Your task to perform on an android device: manage bookmarks in the chrome app Image 0: 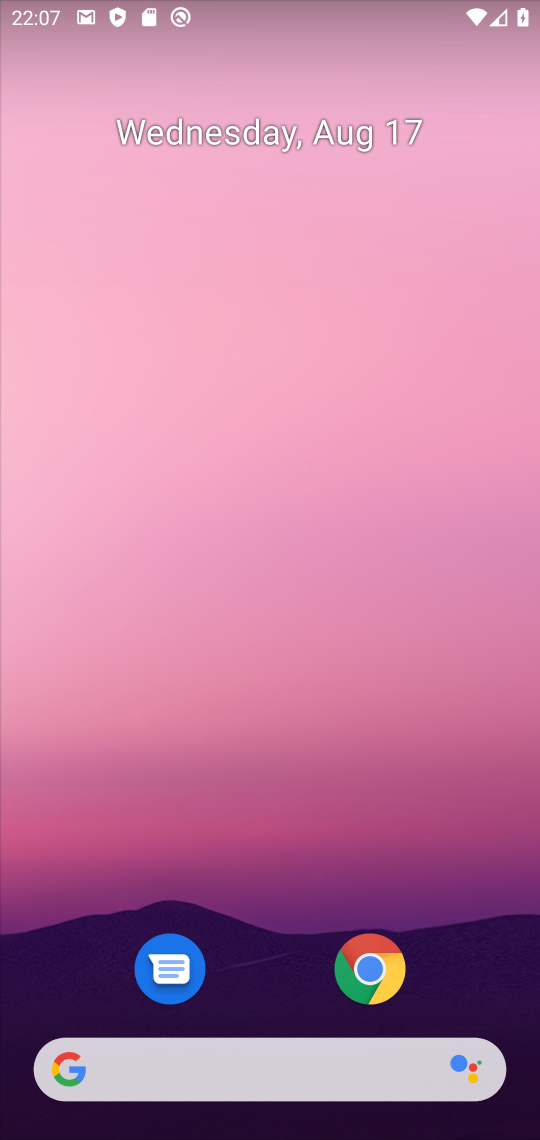
Step 0: click (368, 969)
Your task to perform on an android device: manage bookmarks in the chrome app Image 1: 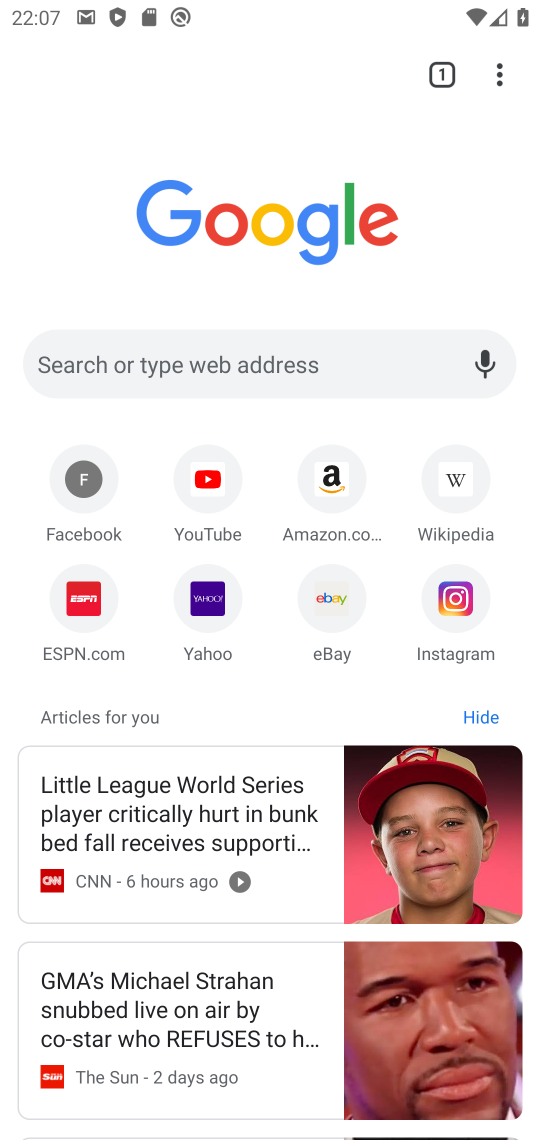
Step 1: click (502, 63)
Your task to perform on an android device: manage bookmarks in the chrome app Image 2: 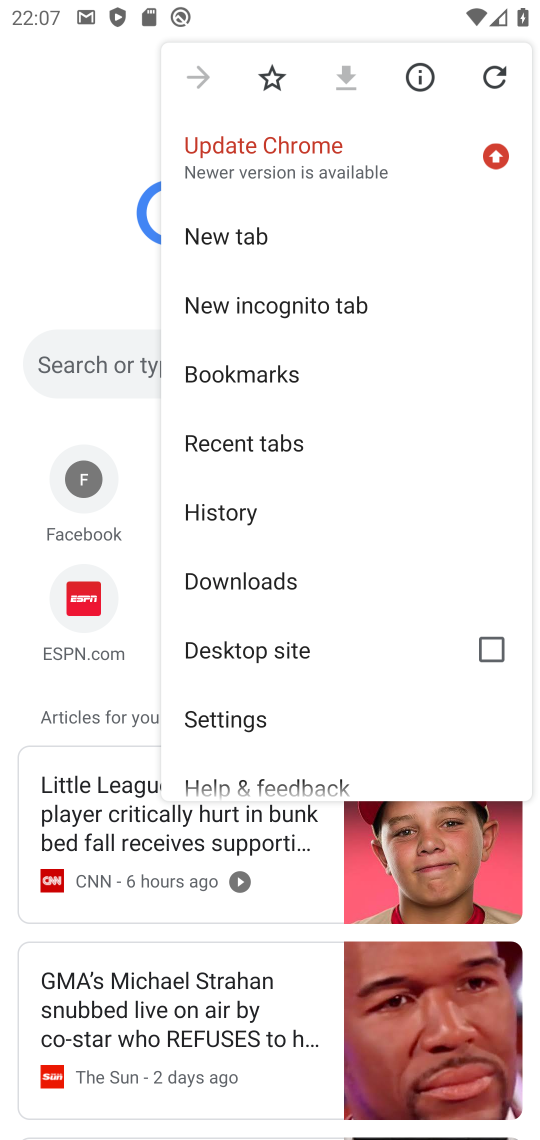
Step 2: click (235, 370)
Your task to perform on an android device: manage bookmarks in the chrome app Image 3: 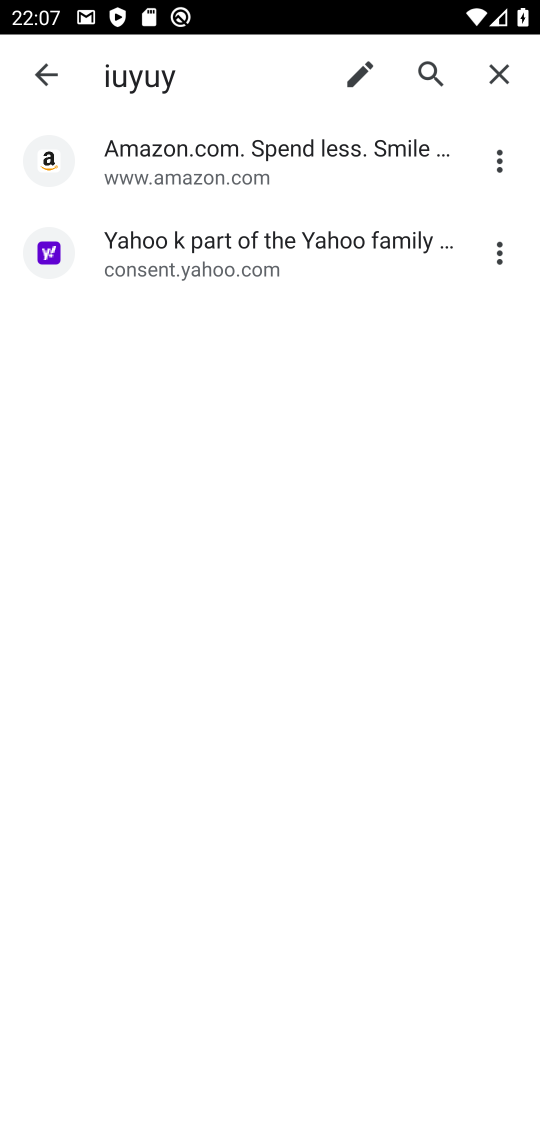
Step 3: click (498, 162)
Your task to perform on an android device: manage bookmarks in the chrome app Image 4: 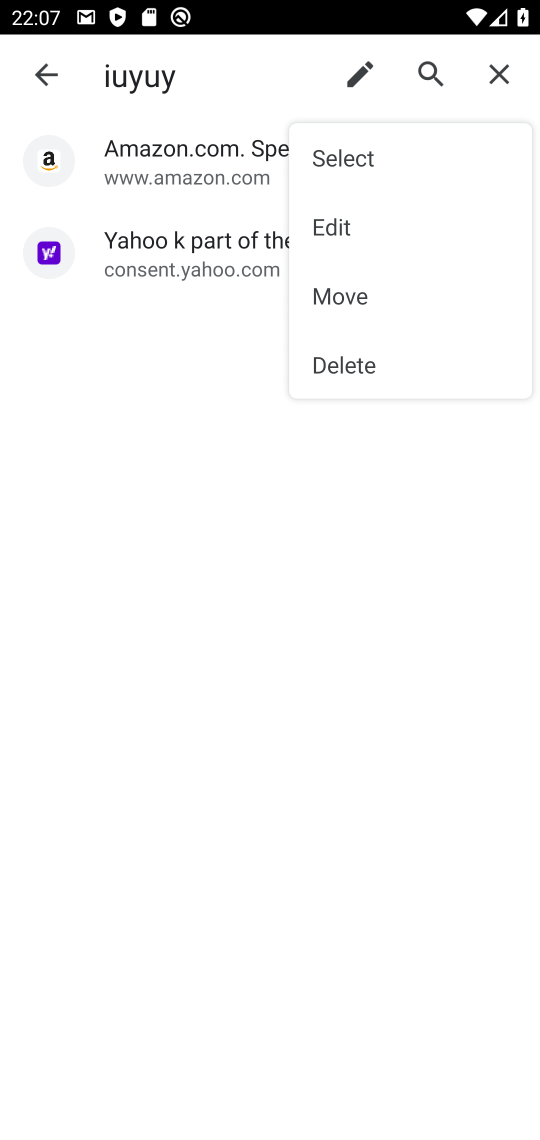
Step 4: click (341, 221)
Your task to perform on an android device: manage bookmarks in the chrome app Image 5: 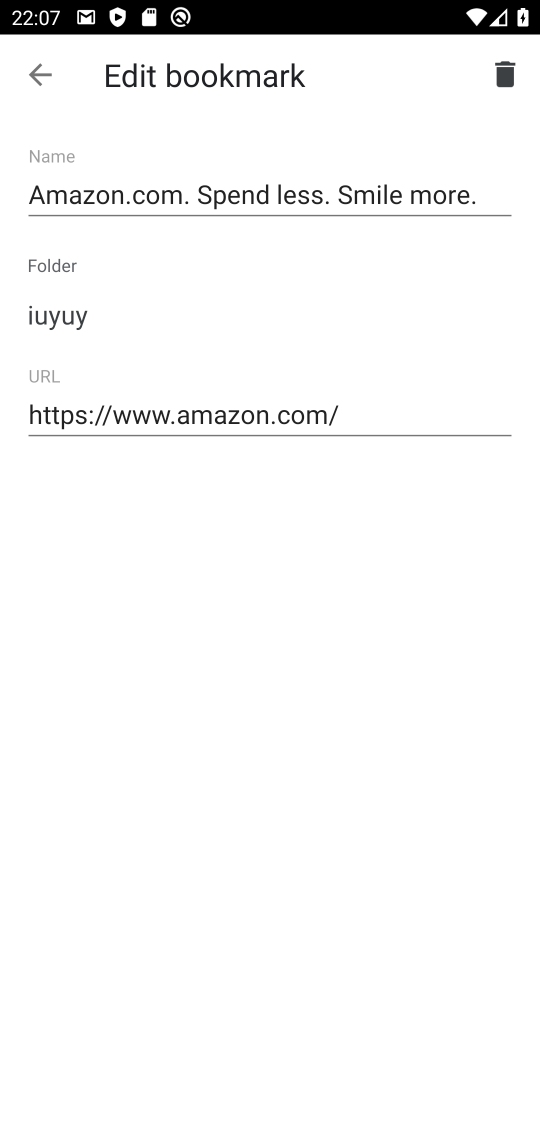
Step 5: task complete